Your task to perform on an android device: Play the last video I watched on Youtube Image 0: 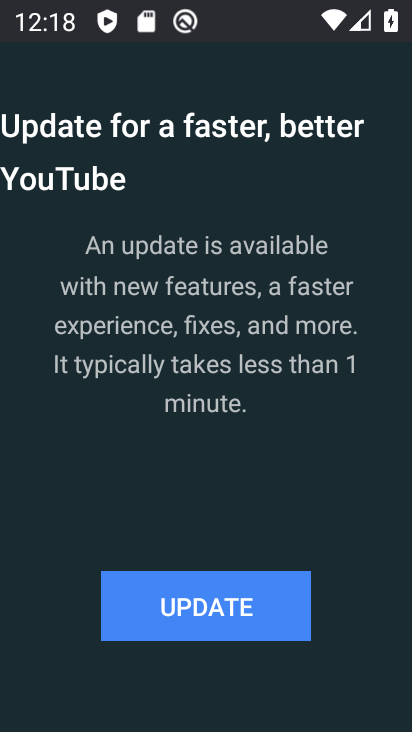
Step 0: press back button
Your task to perform on an android device: Play the last video I watched on Youtube Image 1: 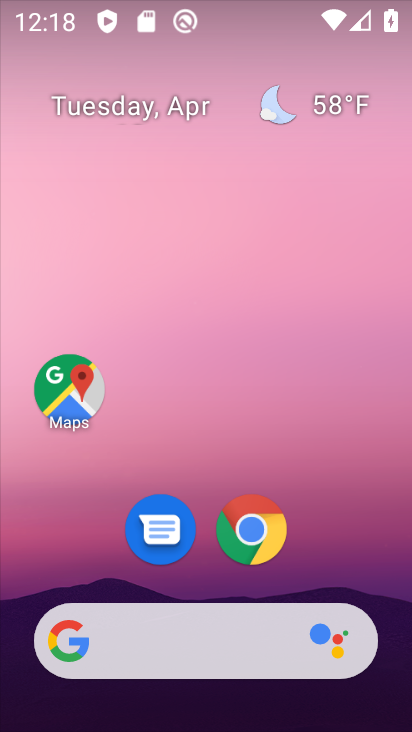
Step 1: drag from (377, 601) to (292, 184)
Your task to perform on an android device: Play the last video I watched on Youtube Image 2: 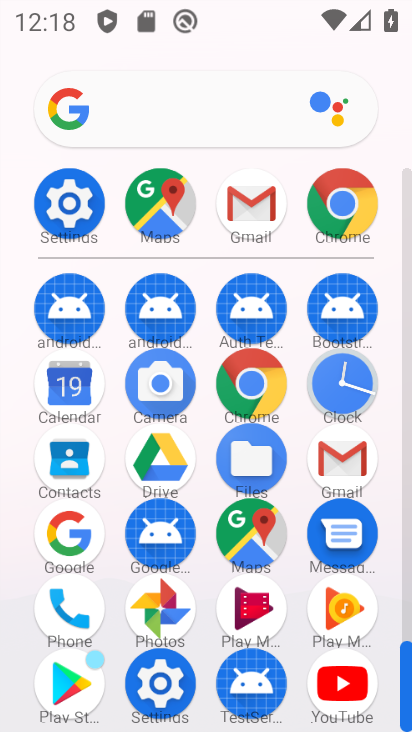
Step 2: click (339, 691)
Your task to perform on an android device: Play the last video I watched on Youtube Image 3: 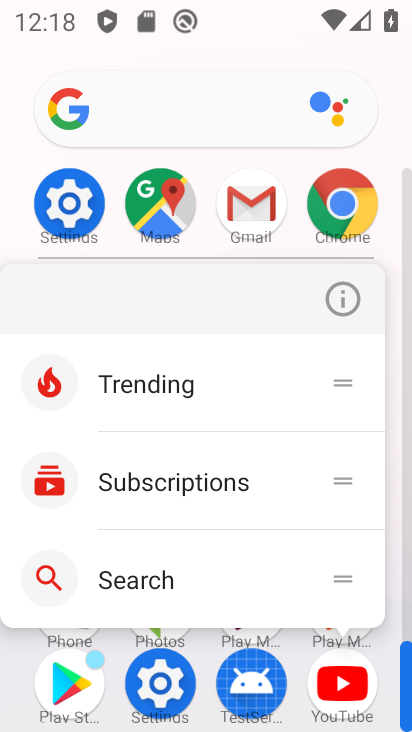
Step 3: click (339, 691)
Your task to perform on an android device: Play the last video I watched on Youtube Image 4: 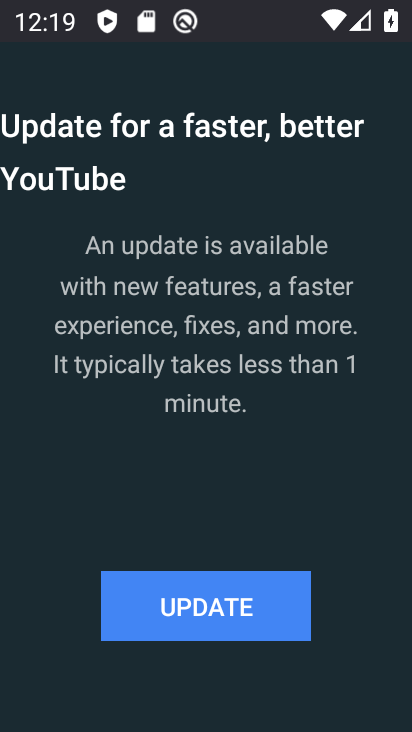
Step 4: click (234, 602)
Your task to perform on an android device: Play the last video I watched on Youtube Image 5: 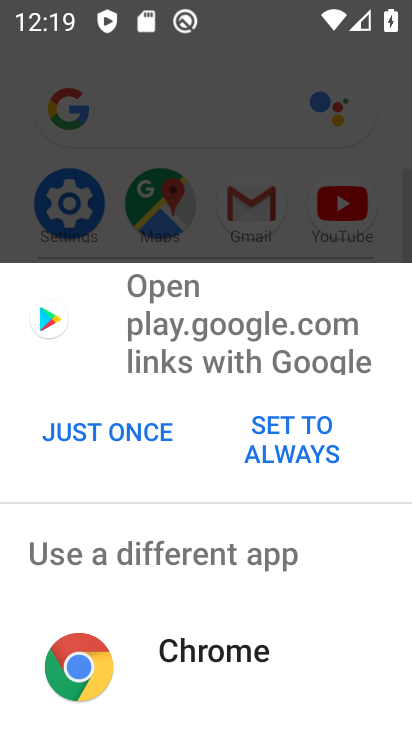
Step 5: click (128, 419)
Your task to perform on an android device: Play the last video I watched on Youtube Image 6: 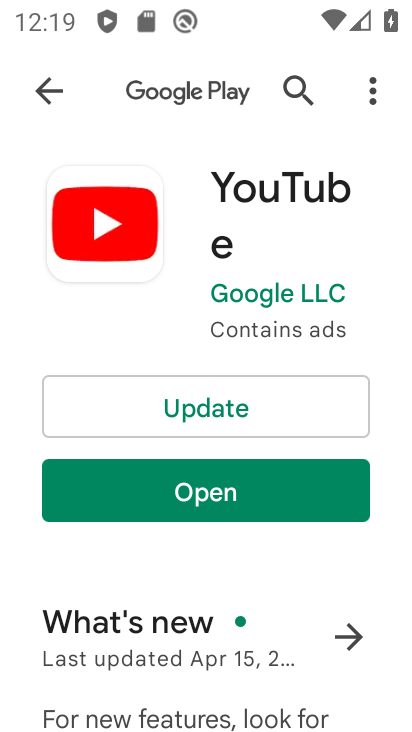
Step 6: click (192, 401)
Your task to perform on an android device: Play the last video I watched on Youtube Image 7: 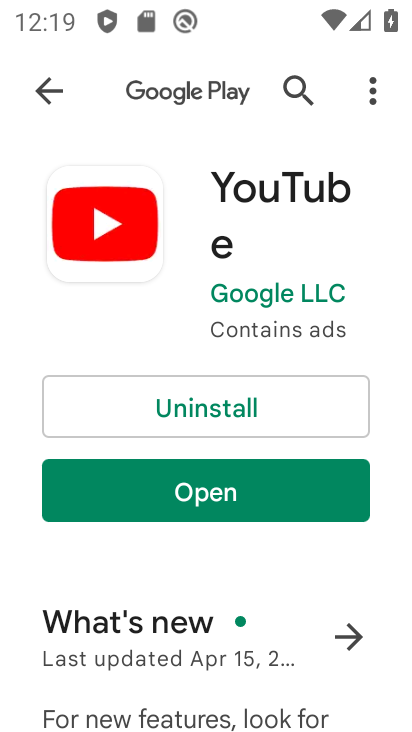
Step 7: click (224, 487)
Your task to perform on an android device: Play the last video I watched on Youtube Image 8: 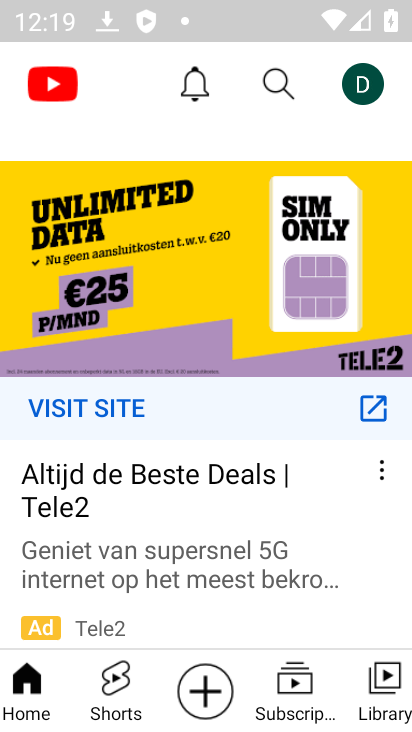
Step 8: click (366, 692)
Your task to perform on an android device: Play the last video I watched on Youtube Image 9: 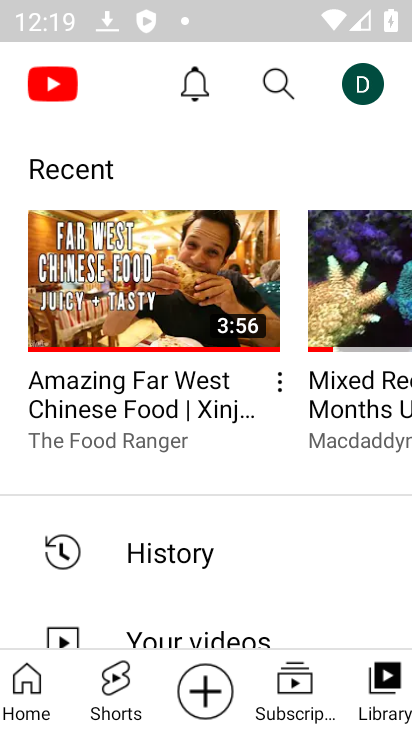
Step 9: click (105, 297)
Your task to perform on an android device: Play the last video I watched on Youtube Image 10: 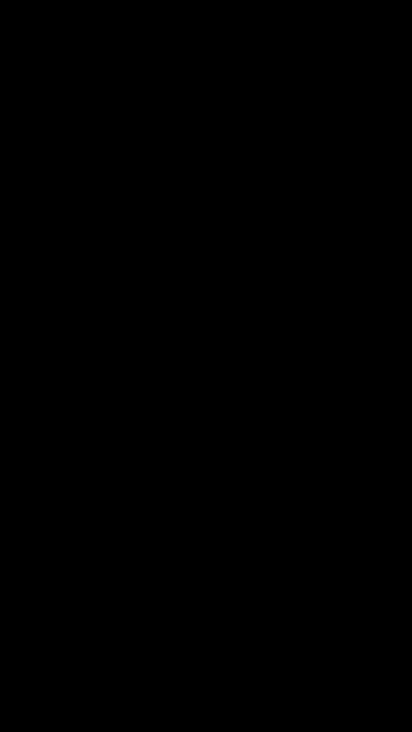
Step 10: task complete